Your task to perform on an android device: find photos in the google photos app Image 0: 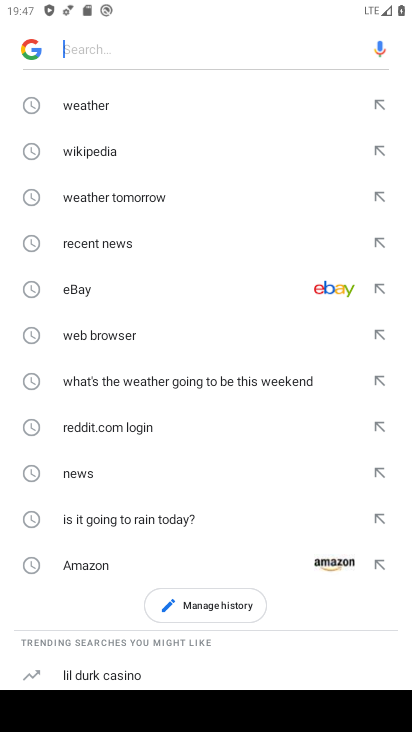
Step 0: press home button
Your task to perform on an android device: find photos in the google photos app Image 1: 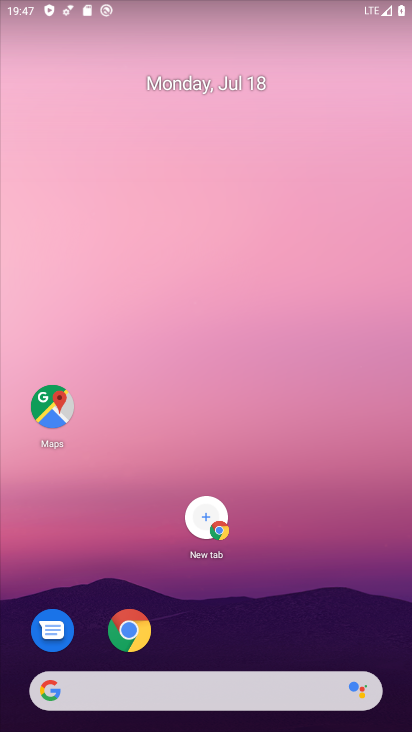
Step 1: drag from (168, 648) to (177, 288)
Your task to perform on an android device: find photos in the google photos app Image 2: 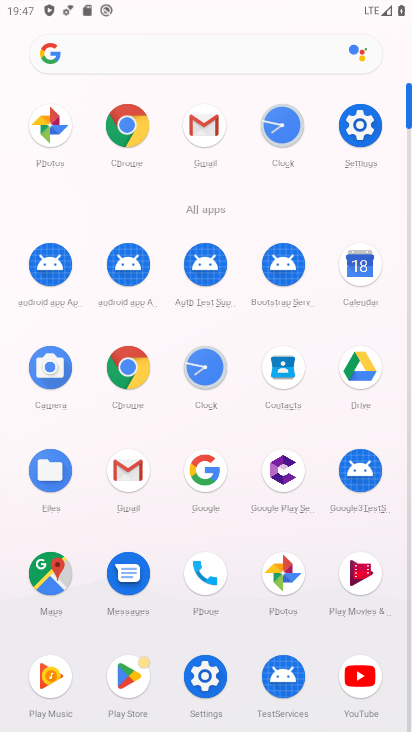
Step 2: click (294, 574)
Your task to perform on an android device: find photos in the google photos app Image 3: 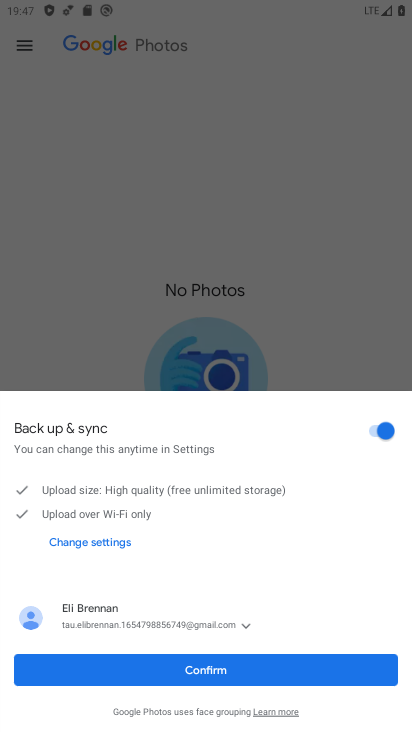
Step 3: click (196, 667)
Your task to perform on an android device: find photos in the google photos app Image 4: 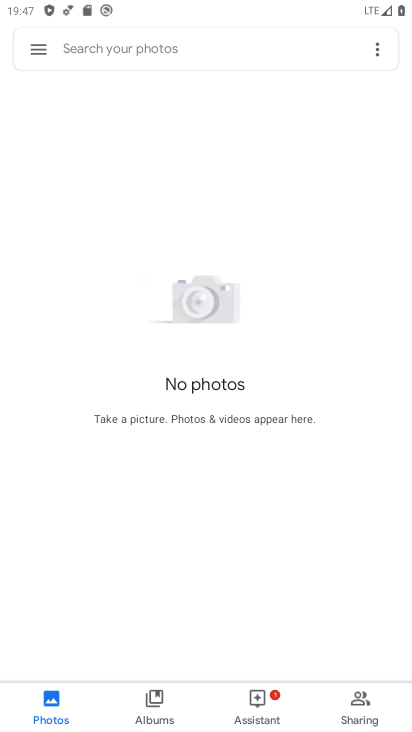
Step 4: task complete